Your task to perform on an android device: Open Google Image 0: 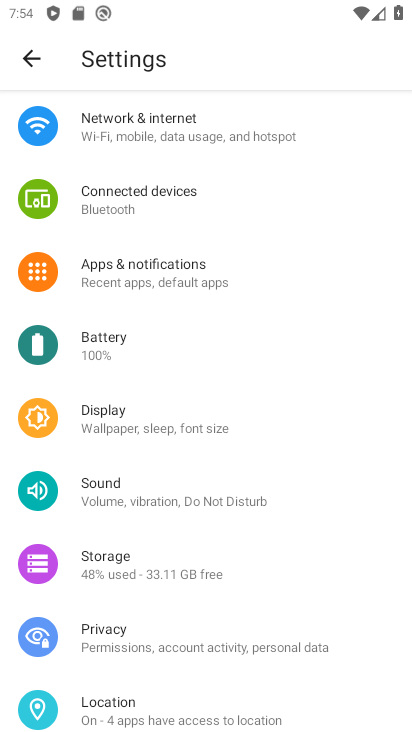
Step 0: press home button
Your task to perform on an android device: Open Google Image 1: 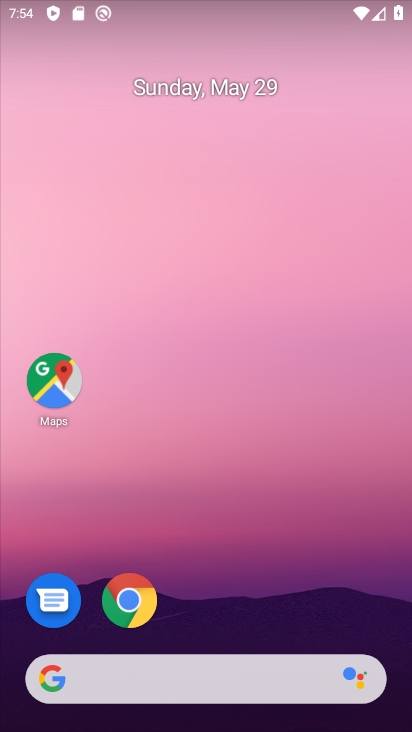
Step 1: drag from (200, 174) to (287, 17)
Your task to perform on an android device: Open Google Image 2: 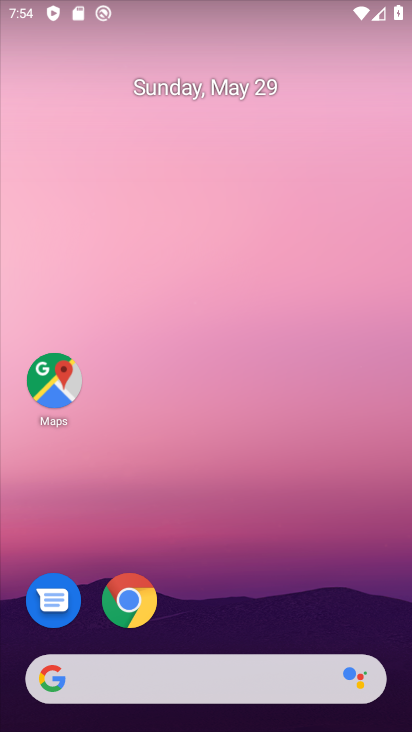
Step 2: drag from (251, 605) to (257, 0)
Your task to perform on an android device: Open Google Image 3: 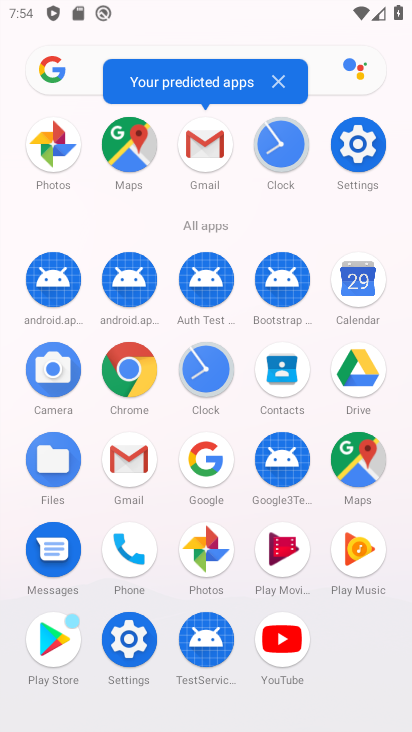
Step 3: click (199, 463)
Your task to perform on an android device: Open Google Image 4: 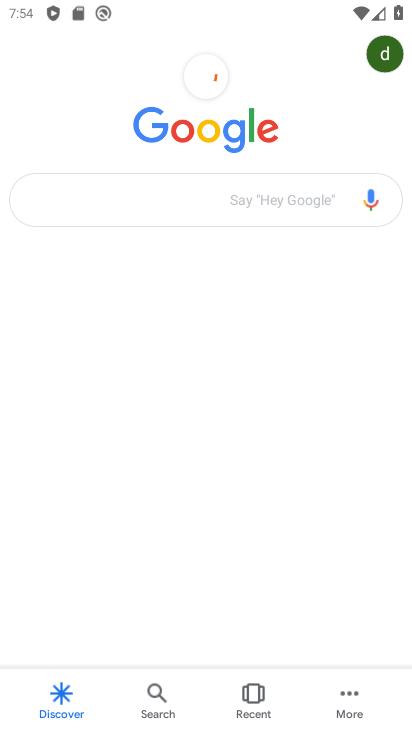
Step 4: task complete